Your task to perform on an android device: Check the weather Image 0: 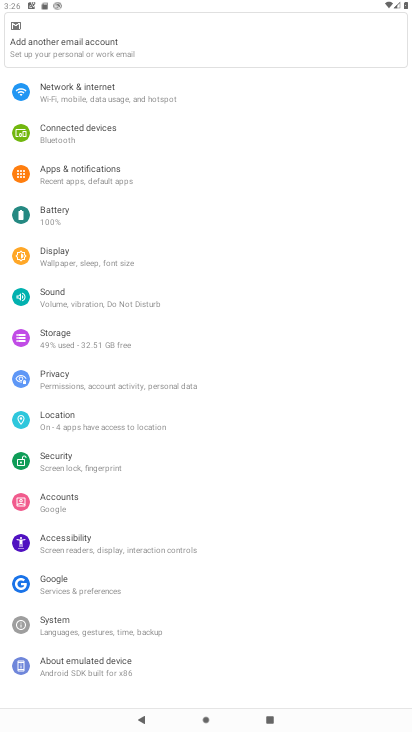
Step 0: press home button
Your task to perform on an android device: Check the weather Image 1: 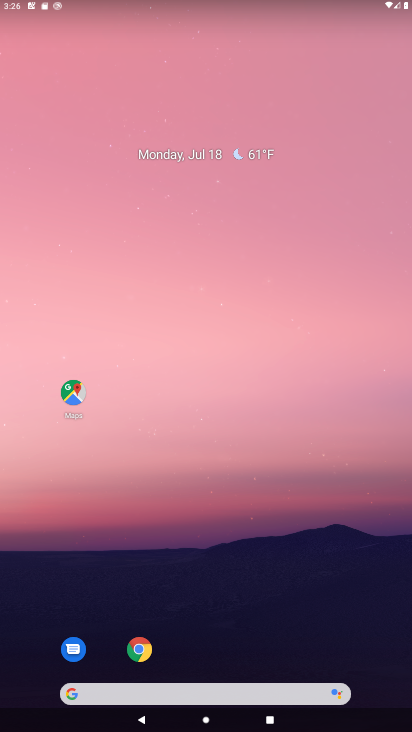
Step 1: click (172, 694)
Your task to perform on an android device: Check the weather Image 2: 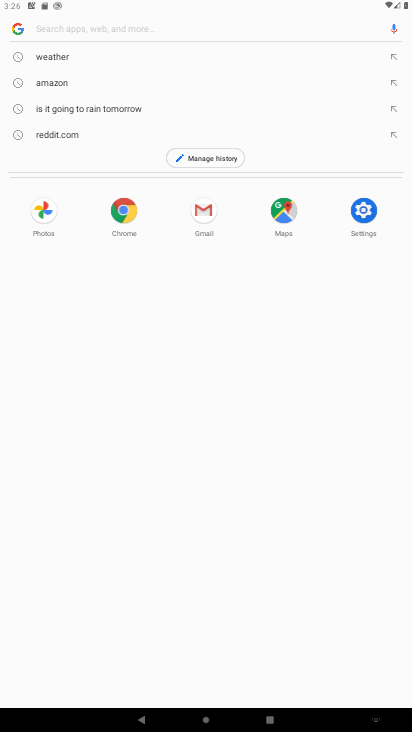
Step 2: type "weather"
Your task to perform on an android device: Check the weather Image 3: 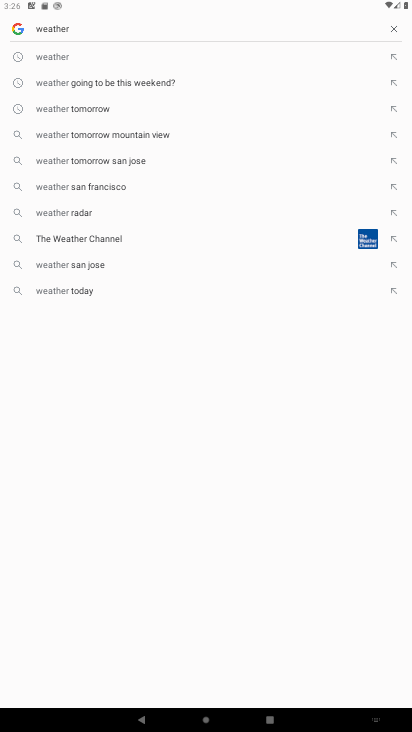
Step 3: click (73, 56)
Your task to perform on an android device: Check the weather Image 4: 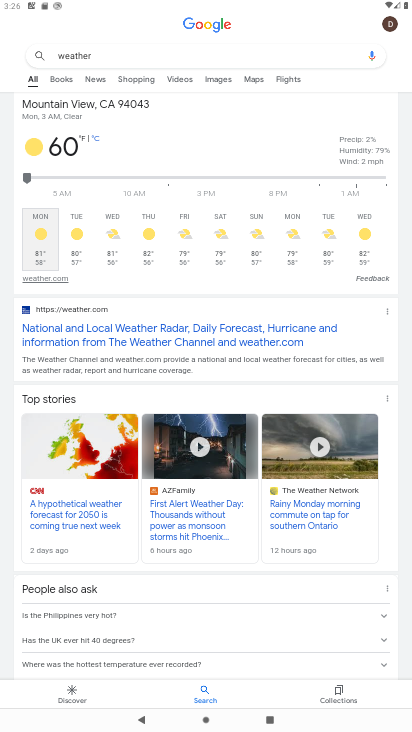
Step 4: task complete